Your task to perform on an android device: turn off sleep mode Image 0: 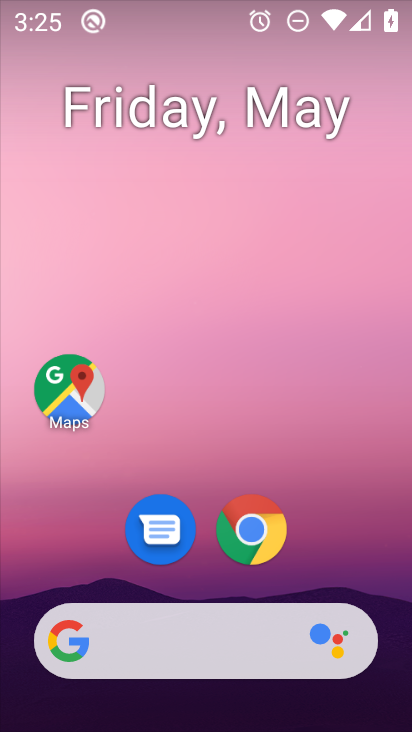
Step 0: drag from (387, 698) to (359, 237)
Your task to perform on an android device: turn off sleep mode Image 1: 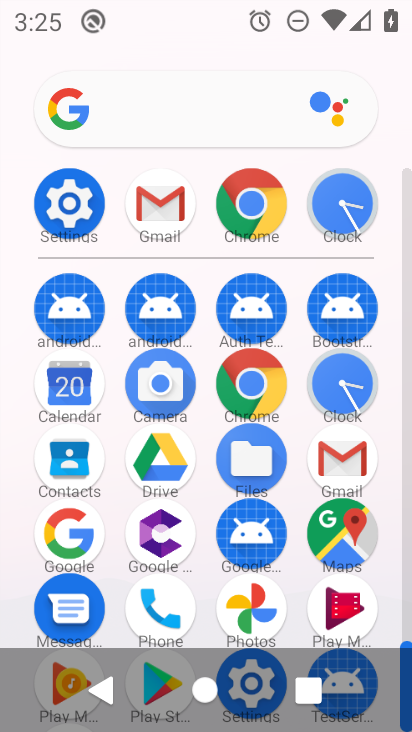
Step 1: click (37, 197)
Your task to perform on an android device: turn off sleep mode Image 2: 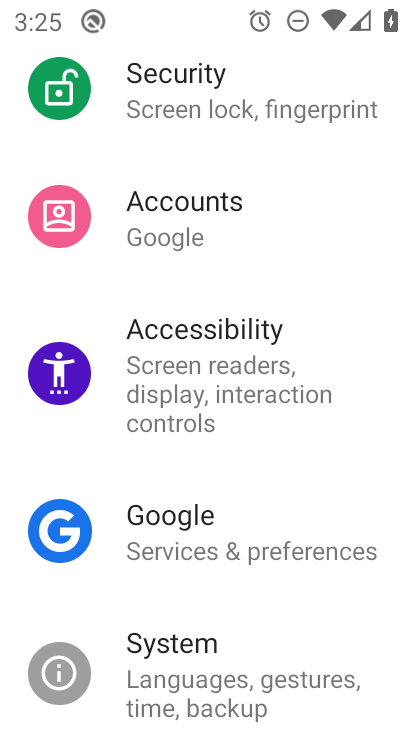
Step 2: drag from (325, 78) to (340, 727)
Your task to perform on an android device: turn off sleep mode Image 3: 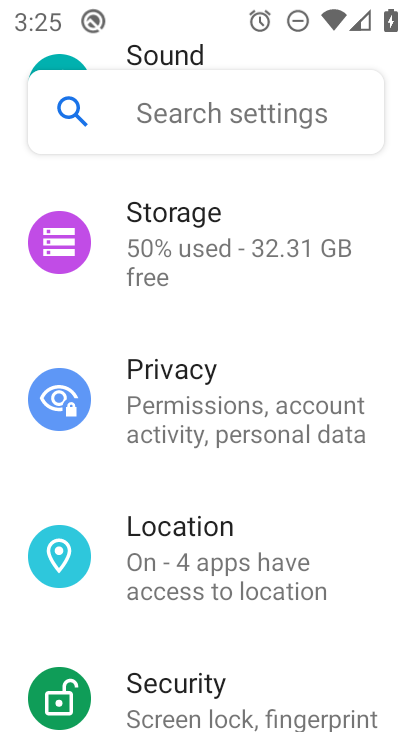
Step 3: drag from (333, 174) to (358, 729)
Your task to perform on an android device: turn off sleep mode Image 4: 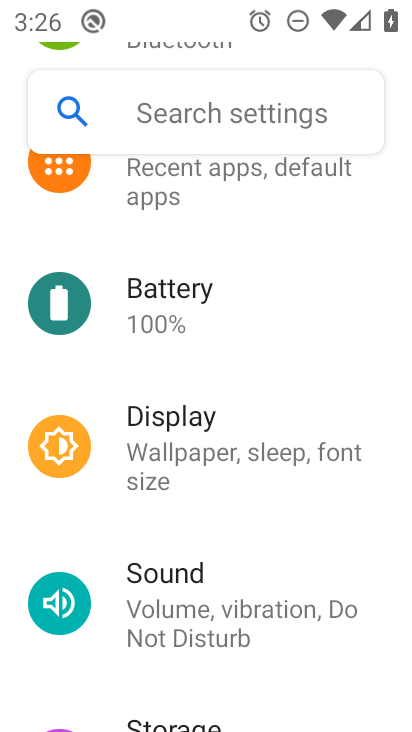
Step 4: drag from (297, 209) to (288, 717)
Your task to perform on an android device: turn off sleep mode Image 5: 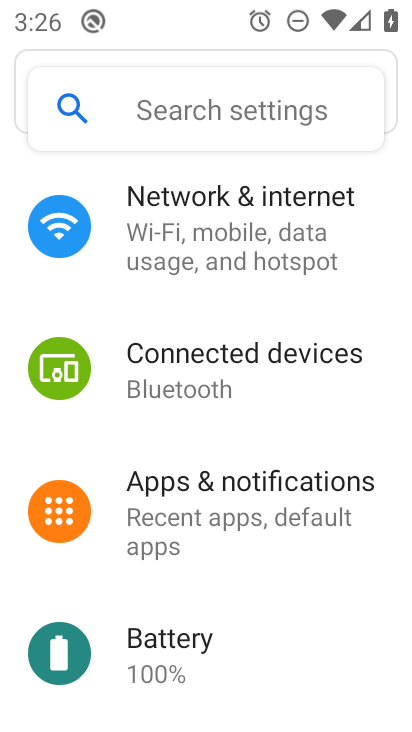
Step 5: click (265, 338)
Your task to perform on an android device: turn off sleep mode Image 6: 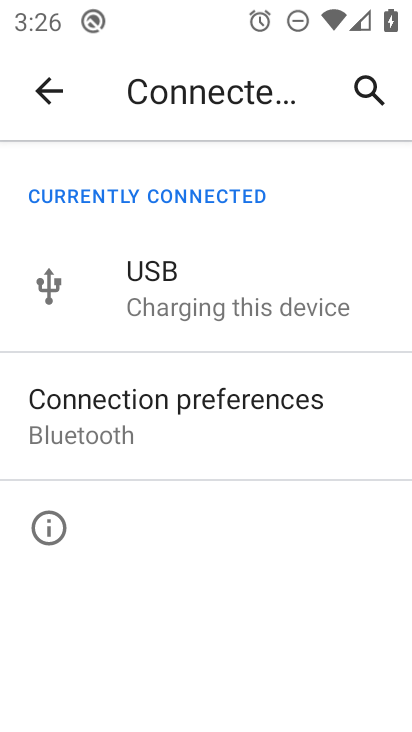
Step 6: click (41, 92)
Your task to perform on an android device: turn off sleep mode Image 7: 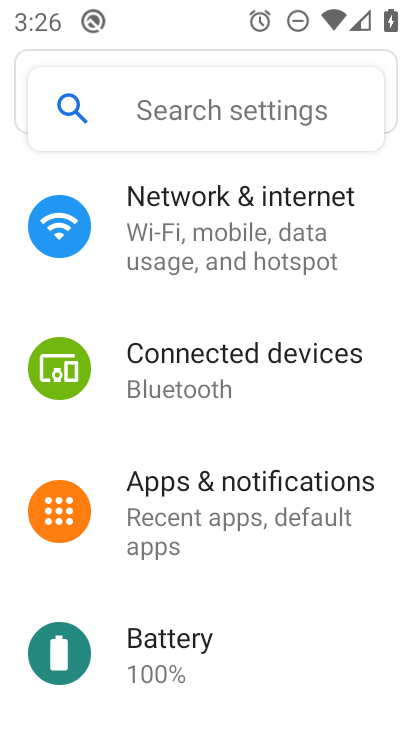
Step 7: drag from (352, 611) to (352, 308)
Your task to perform on an android device: turn off sleep mode Image 8: 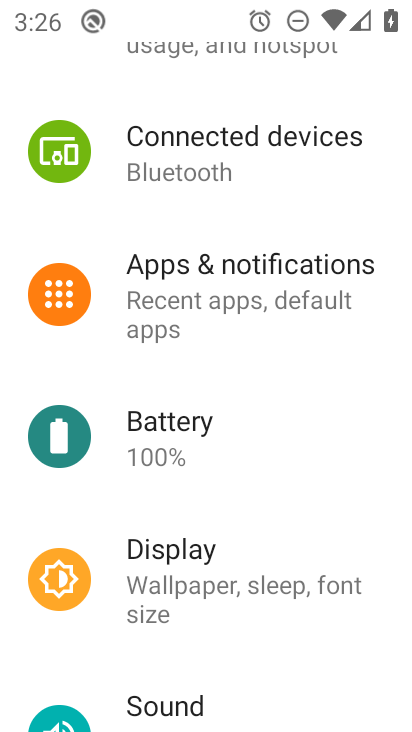
Step 8: click (170, 565)
Your task to perform on an android device: turn off sleep mode Image 9: 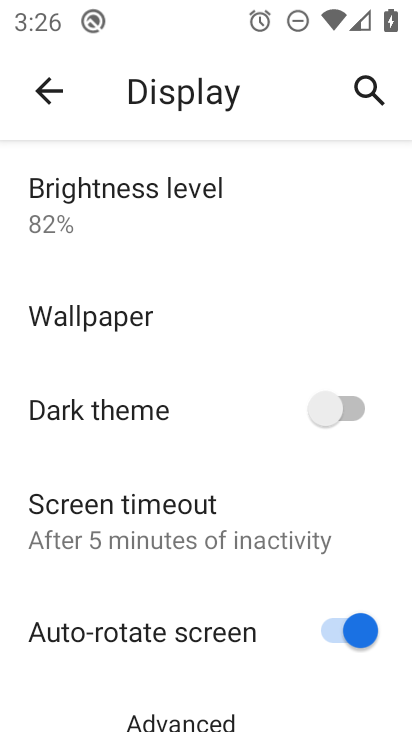
Step 9: drag from (229, 694) to (204, 362)
Your task to perform on an android device: turn off sleep mode Image 10: 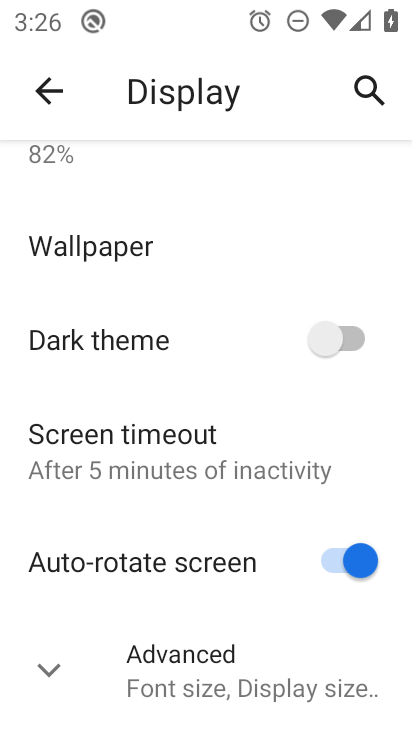
Step 10: click (103, 458)
Your task to perform on an android device: turn off sleep mode Image 11: 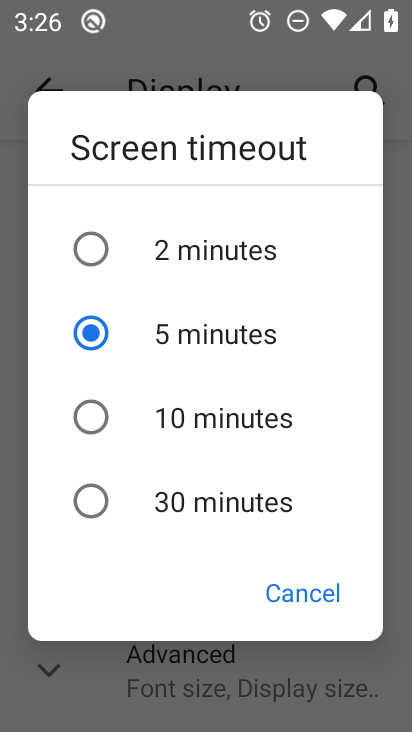
Step 11: task complete